Your task to perform on an android device: change text size in settings app Image 0: 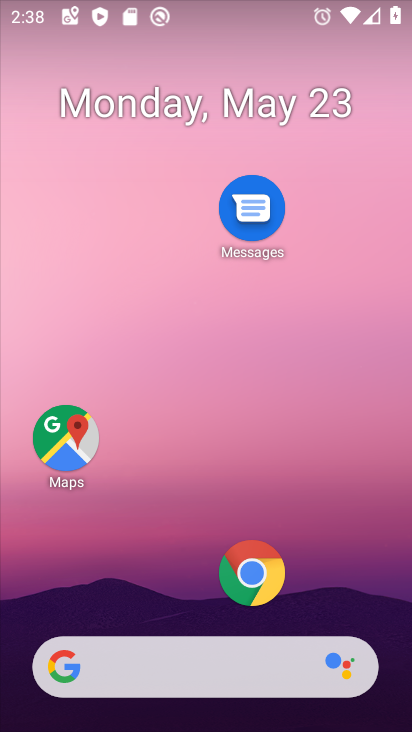
Step 0: drag from (311, 677) to (332, 23)
Your task to perform on an android device: change text size in settings app Image 1: 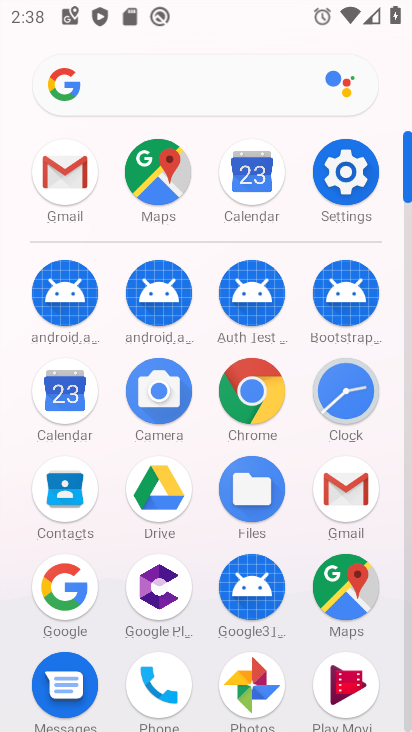
Step 1: click (359, 154)
Your task to perform on an android device: change text size in settings app Image 2: 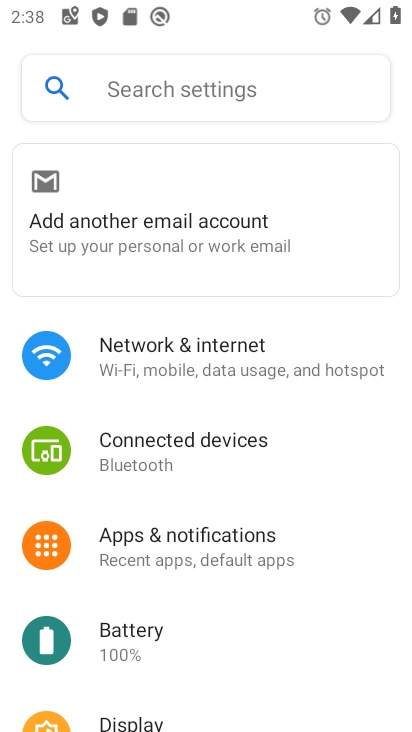
Step 2: drag from (311, 519) to (299, 92)
Your task to perform on an android device: change text size in settings app Image 3: 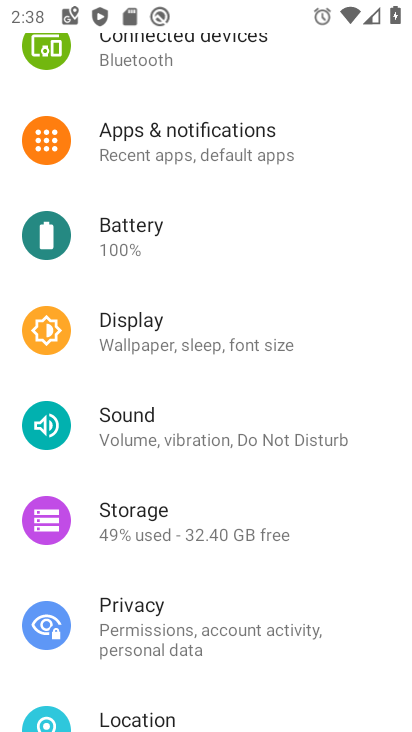
Step 3: drag from (236, 689) to (185, 725)
Your task to perform on an android device: change text size in settings app Image 4: 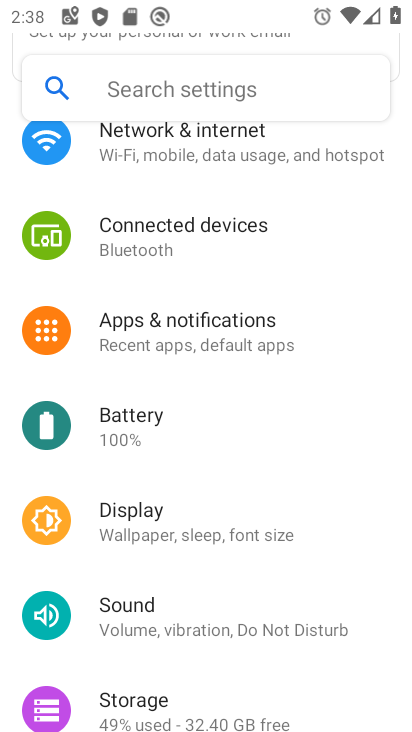
Step 4: drag from (229, 675) to (239, 193)
Your task to perform on an android device: change text size in settings app Image 5: 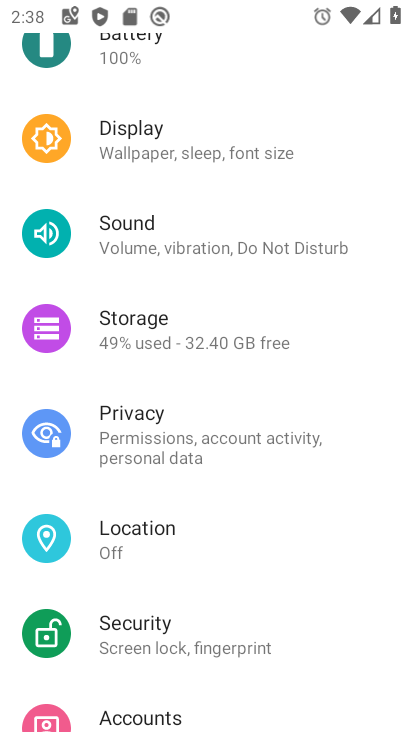
Step 5: drag from (218, 358) to (234, 154)
Your task to perform on an android device: change text size in settings app Image 6: 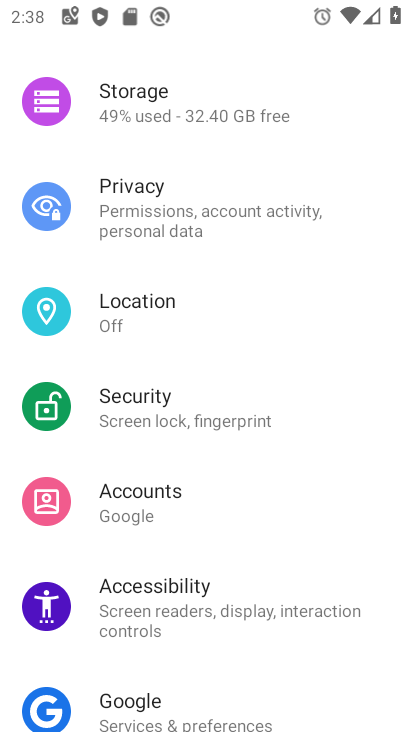
Step 6: drag from (237, 172) to (269, 727)
Your task to perform on an android device: change text size in settings app Image 7: 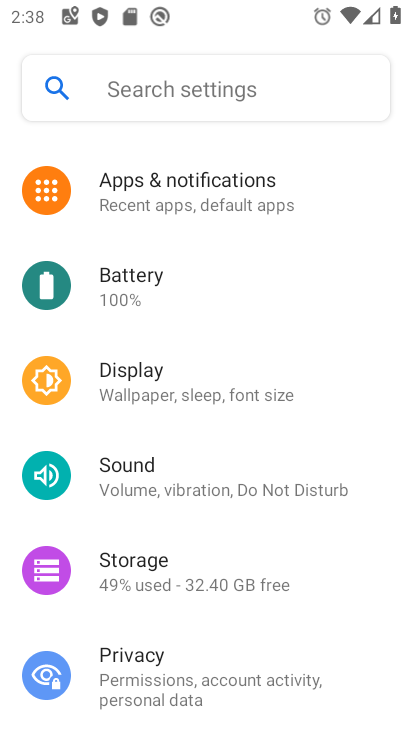
Step 7: click (168, 288)
Your task to perform on an android device: change text size in settings app Image 8: 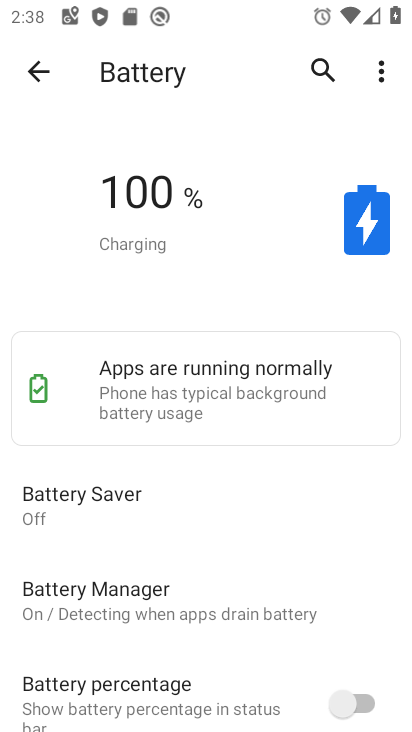
Step 8: press back button
Your task to perform on an android device: change text size in settings app Image 9: 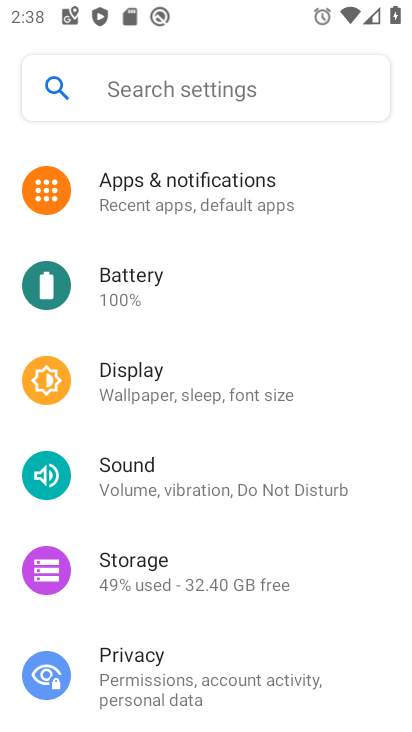
Step 9: click (186, 660)
Your task to perform on an android device: change text size in settings app Image 10: 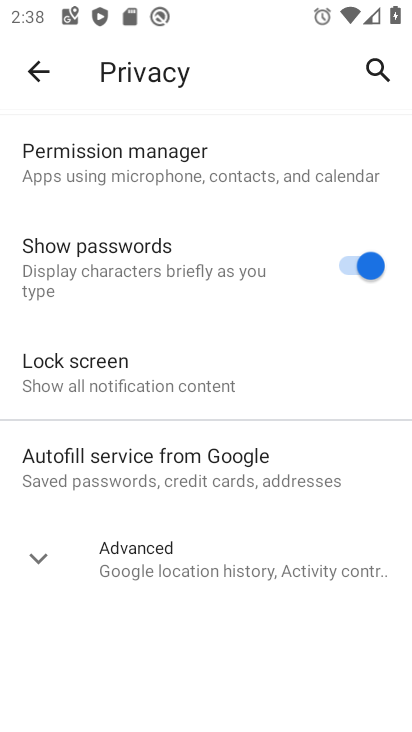
Step 10: press back button
Your task to perform on an android device: change text size in settings app Image 11: 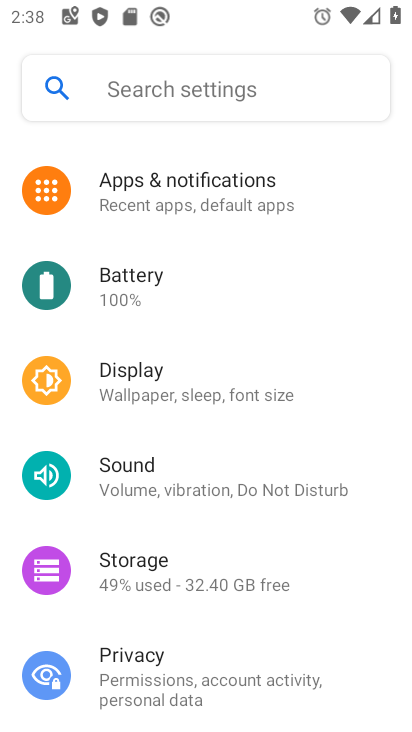
Step 11: drag from (308, 605) to (295, 60)
Your task to perform on an android device: change text size in settings app Image 12: 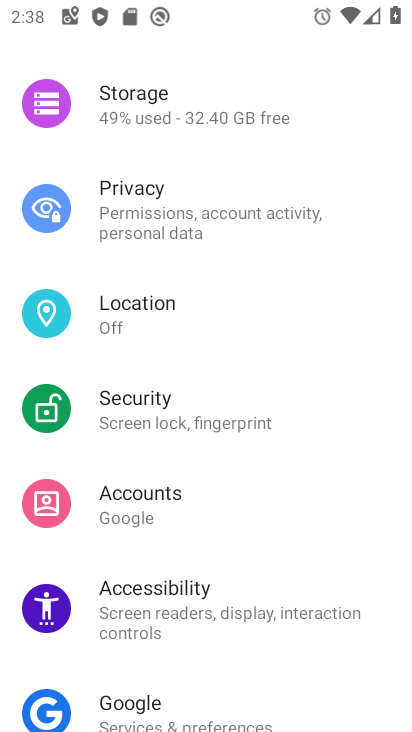
Step 12: click (237, 607)
Your task to perform on an android device: change text size in settings app Image 13: 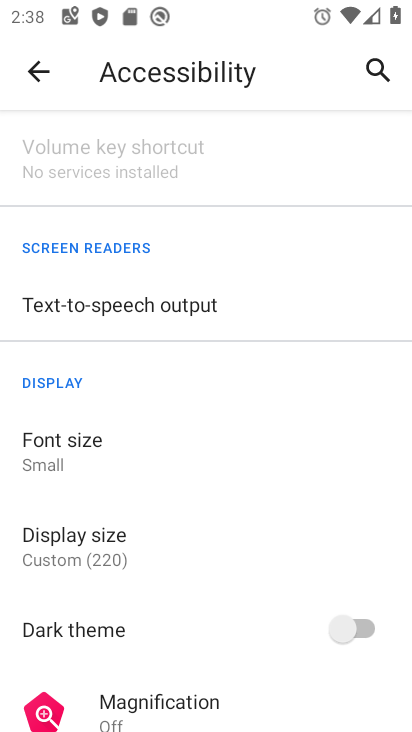
Step 13: click (100, 451)
Your task to perform on an android device: change text size in settings app Image 14: 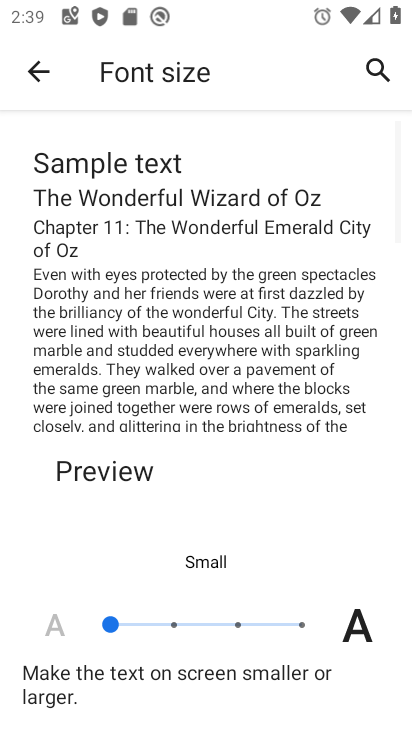
Step 14: click (172, 629)
Your task to perform on an android device: change text size in settings app Image 15: 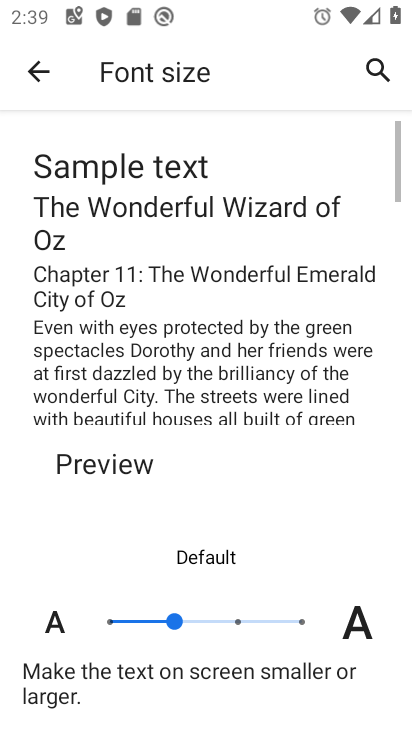
Step 15: task complete